Your task to perform on an android device: Add "logitech g502" to the cart on ebay, then select checkout. Image 0: 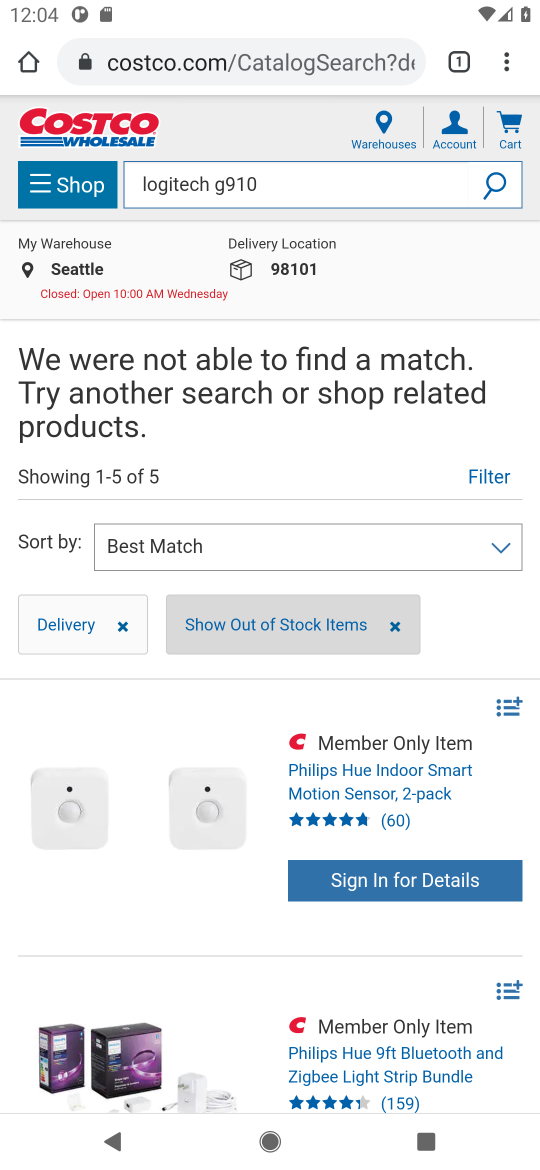
Step 0: press home button
Your task to perform on an android device: Add "logitech g502" to the cart on ebay, then select checkout. Image 1: 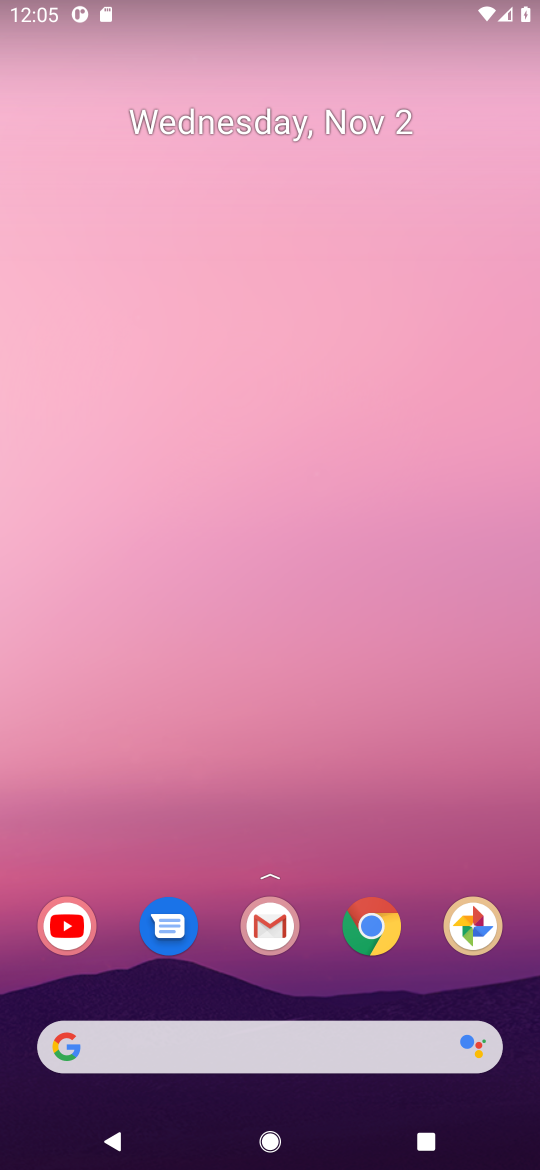
Step 1: click (375, 925)
Your task to perform on an android device: Add "logitech g502" to the cart on ebay, then select checkout. Image 2: 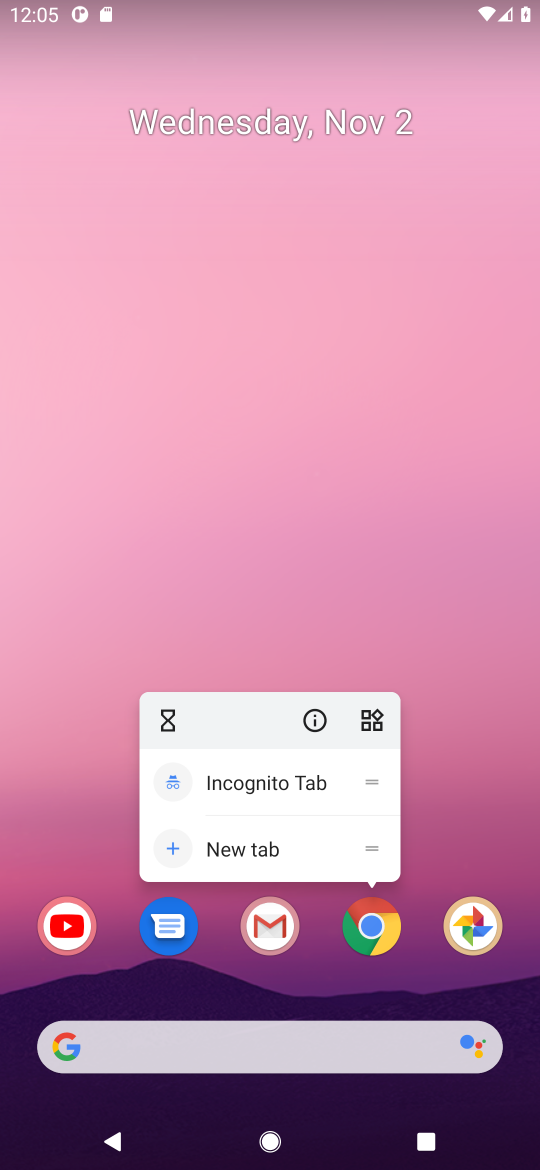
Step 2: click (374, 930)
Your task to perform on an android device: Add "logitech g502" to the cart on ebay, then select checkout. Image 3: 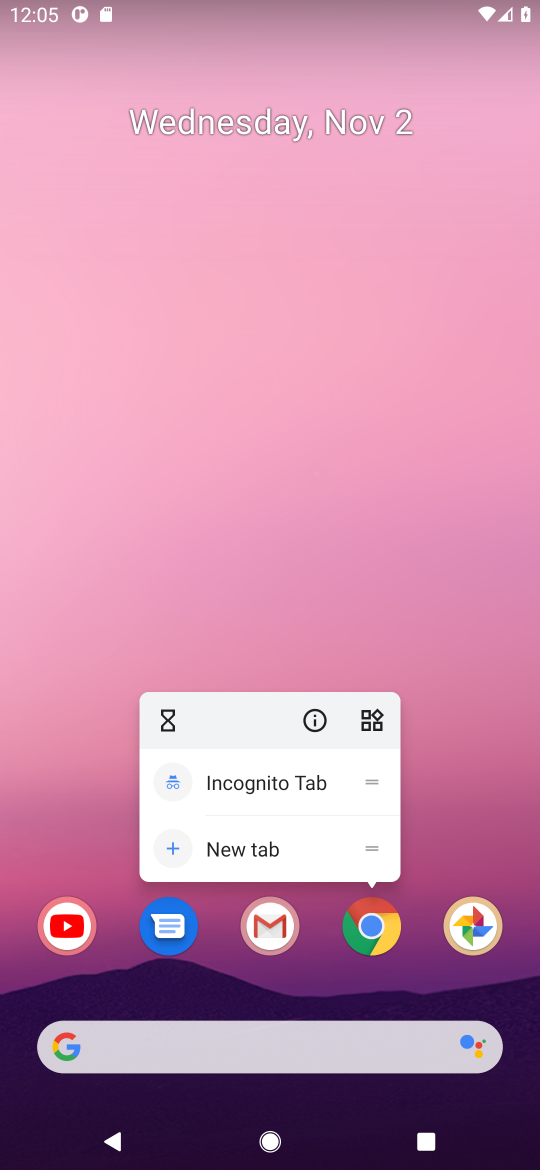
Step 3: click (367, 934)
Your task to perform on an android device: Add "logitech g502" to the cart on ebay, then select checkout. Image 4: 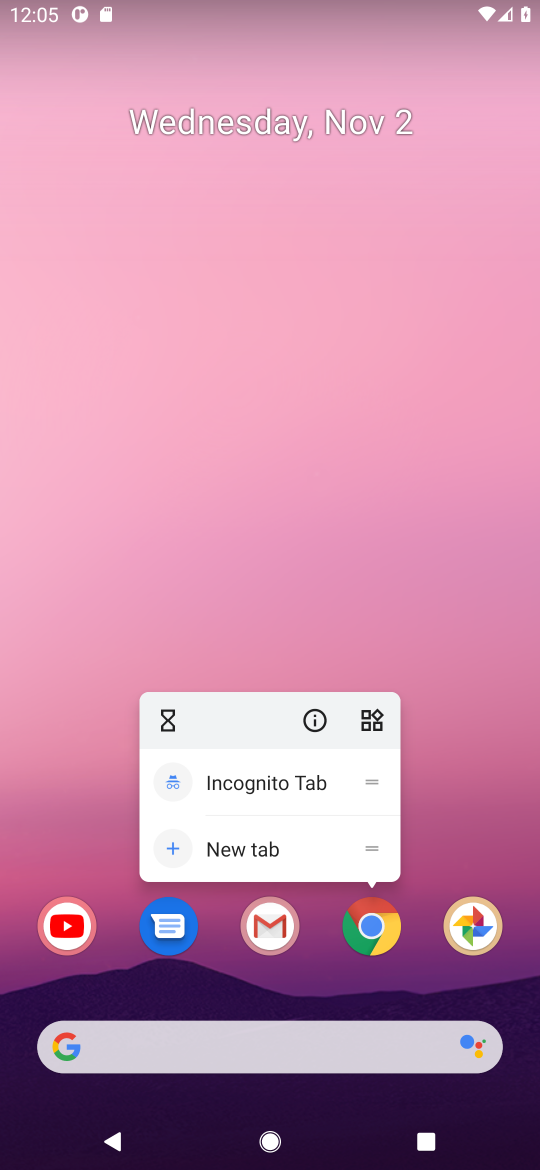
Step 4: click (374, 918)
Your task to perform on an android device: Add "logitech g502" to the cart on ebay, then select checkout. Image 5: 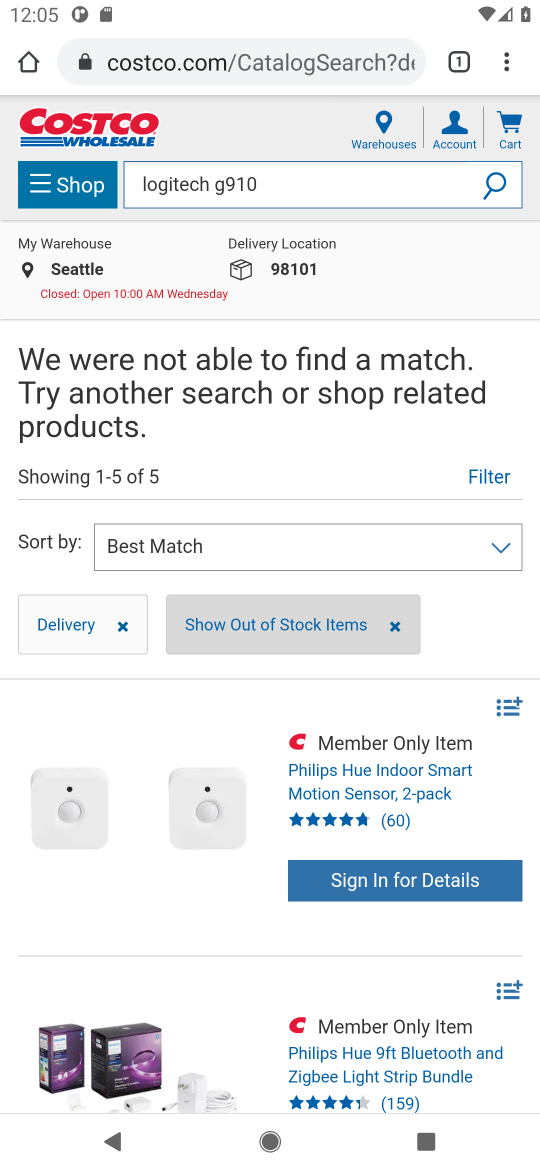
Step 5: click (252, 59)
Your task to perform on an android device: Add "logitech g502" to the cart on ebay, then select checkout. Image 6: 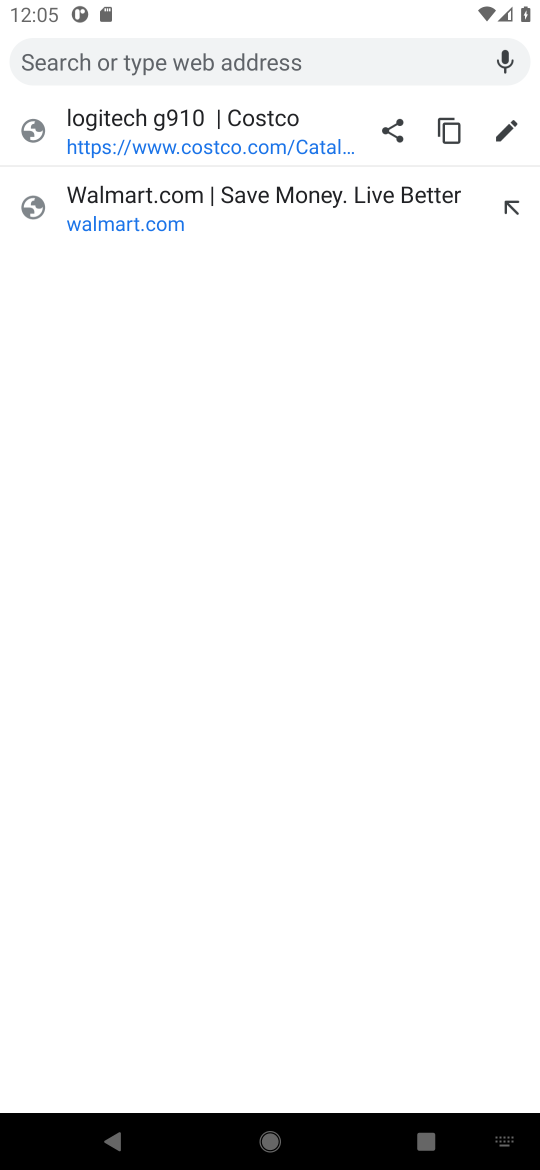
Step 6: type "ebay"
Your task to perform on an android device: Add "logitech g502" to the cart on ebay, then select checkout. Image 7: 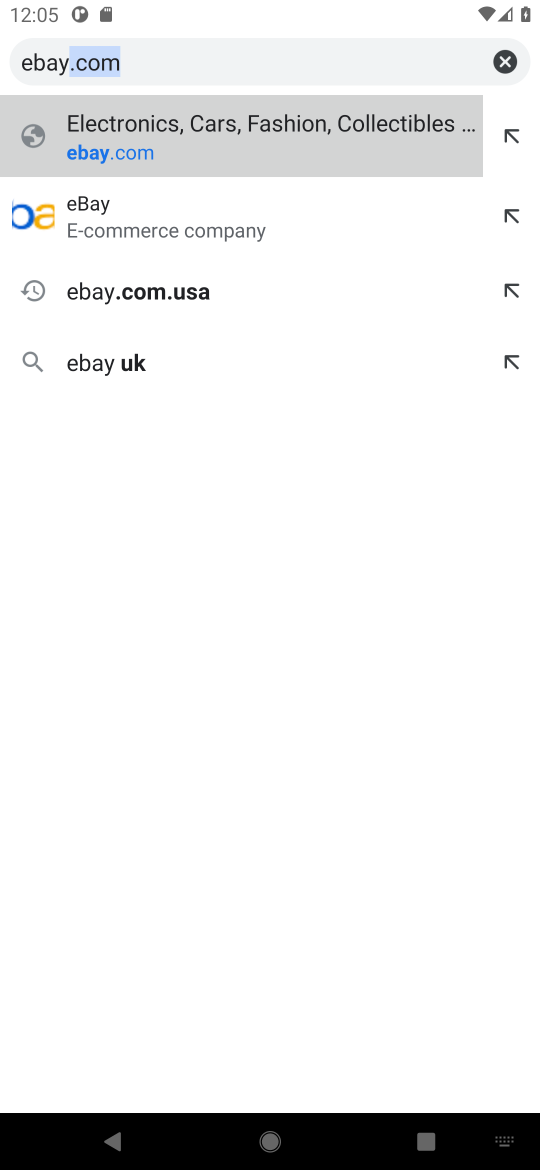
Step 7: press enter
Your task to perform on an android device: Add "logitech g502" to the cart on ebay, then select checkout. Image 8: 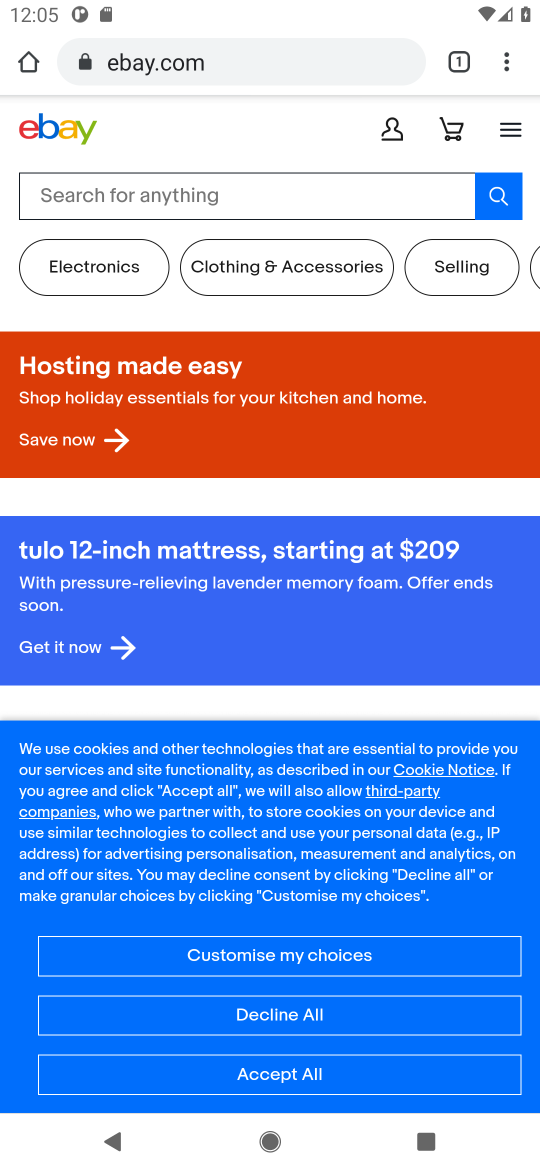
Step 8: click (254, 1076)
Your task to perform on an android device: Add "logitech g502" to the cart on ebay, then select checkout. Image 9: 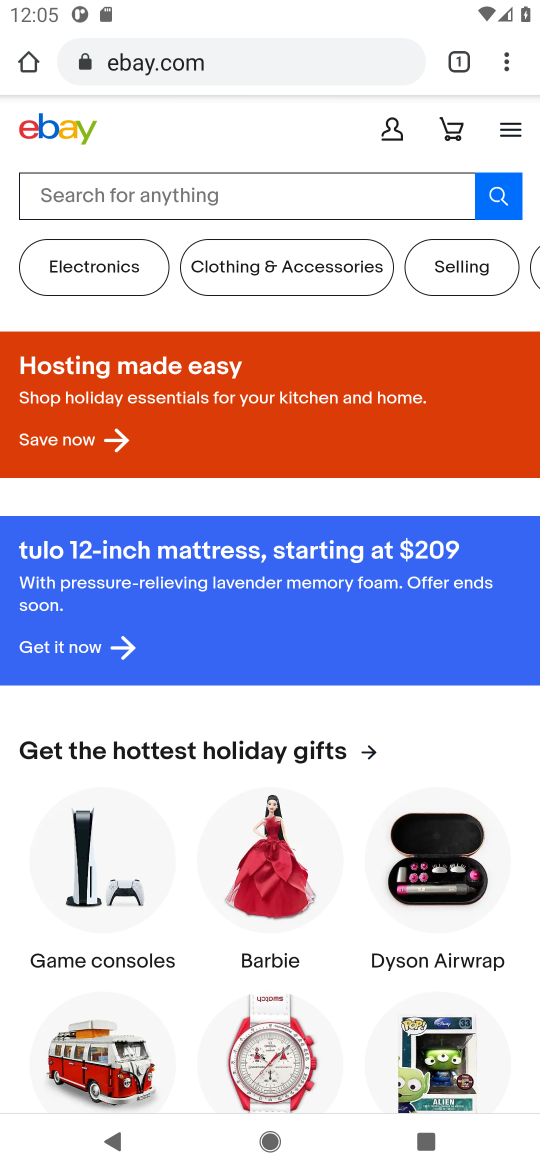
Step 9: click (174, 197)
Your task to perform on an android device: Add "logitech g502" to the cart on ebay, then select checkout. Image 10: 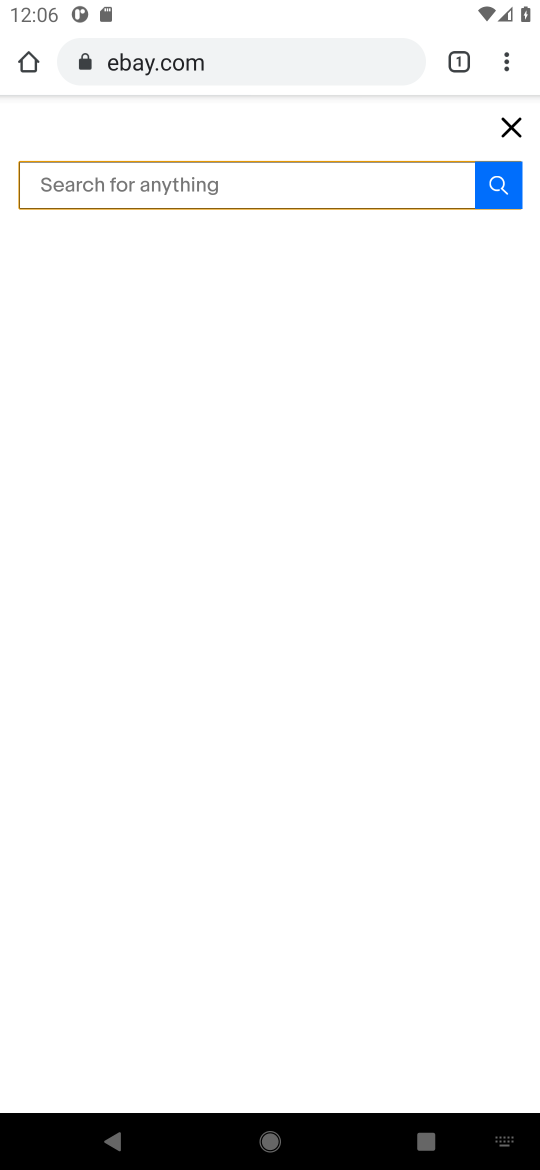
Step 10: type "logitech g502"
Your task to perform on an android device: Add "logitech g502" to the cart on ebay, then select checkout. Image 11: 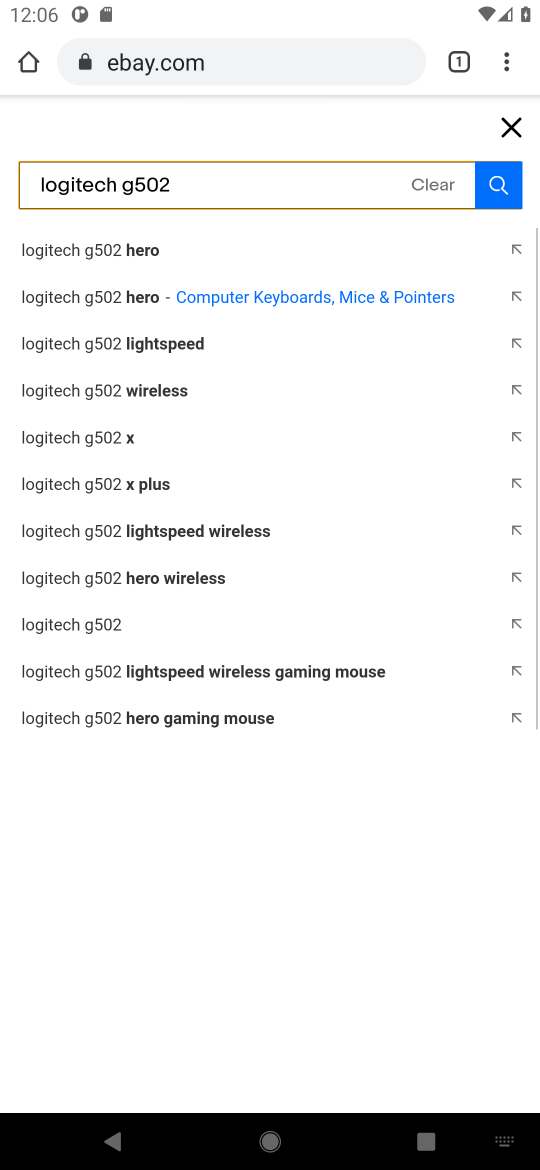
Step 11: press enter
Your task to perform on an android device: Add "logitech g502" to the cart on ebay, then select checkout. Image 12: 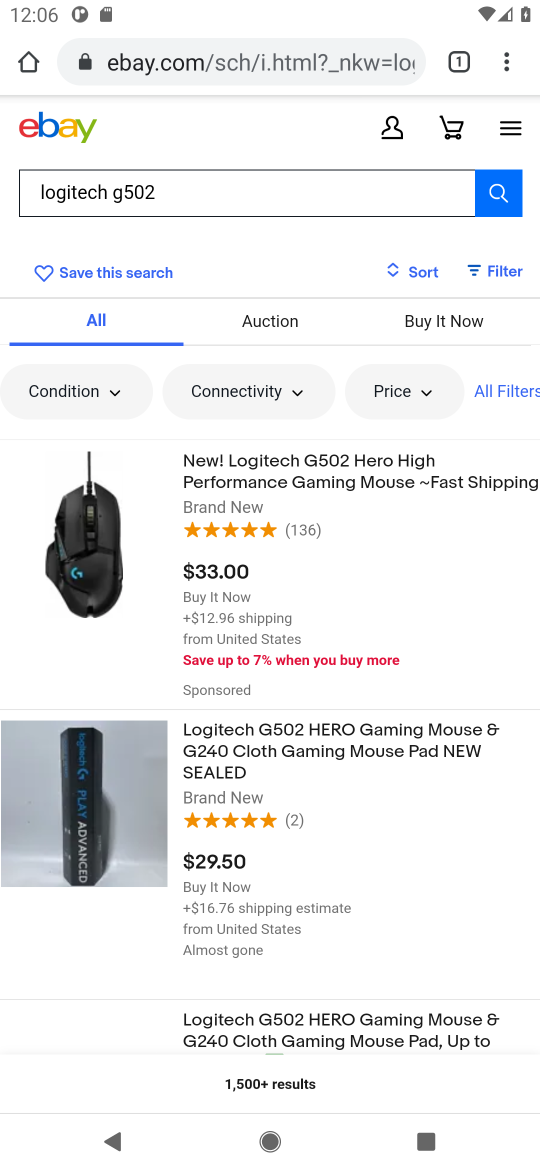
Step 12: click (309, 550)
Your task to perform on an android device: Add "logitech g502" to the cart on ebay, then select checkout. Image 13: 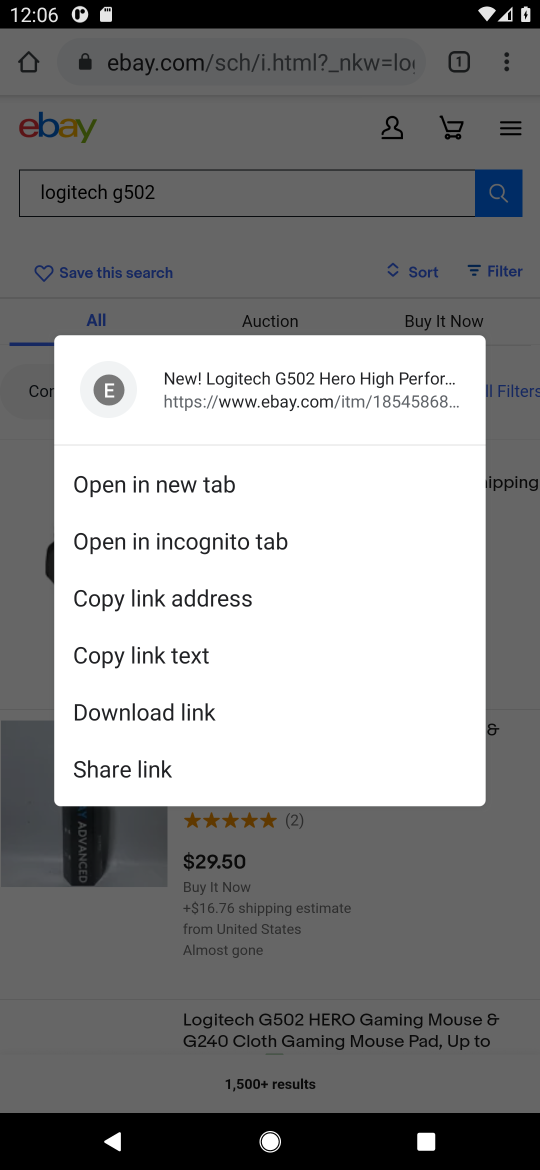
Step 13: click (503, 560)
Your task to perform on an android device: Add "logitech g502" to the cart on ebay, then select checkout. Image 14: 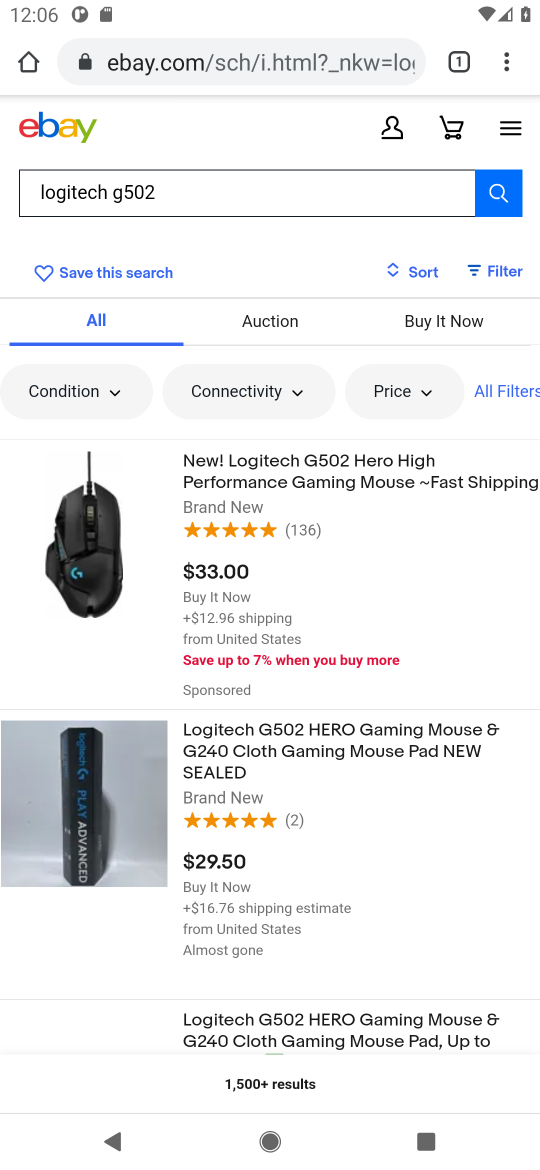
Step 14: click (239, 472)
Your task to perform on an android device: Add "logitech g502" to the cart on ebay, then select checkout. Image 15: 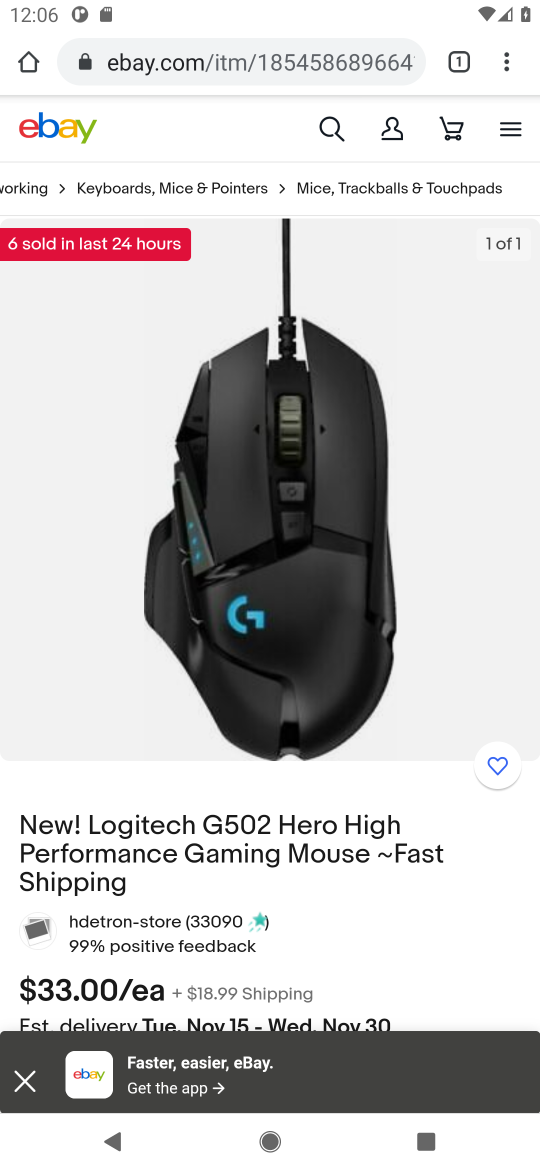
Step 15: drag from (373, 986) to (454, 161)
Your task to perform on an android device: Add "logitech g502" to the cart on ebay, then select checkout. Image 16: 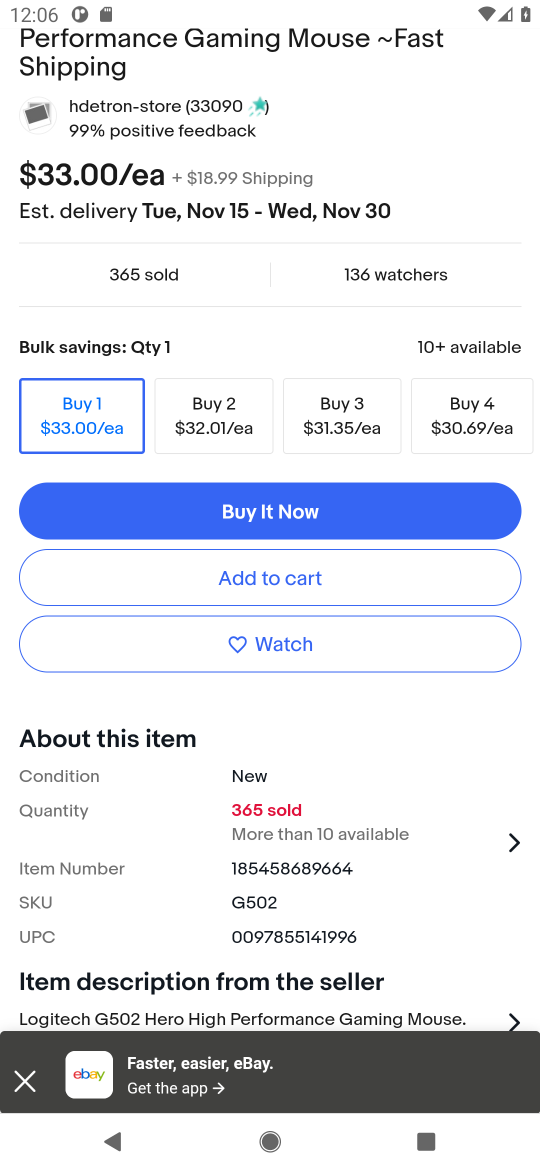
Step 16: click (262, 575)
Your task to perform on an android device: Add "logitech g502" to the cart on ebay, then select checkout. Image 17: 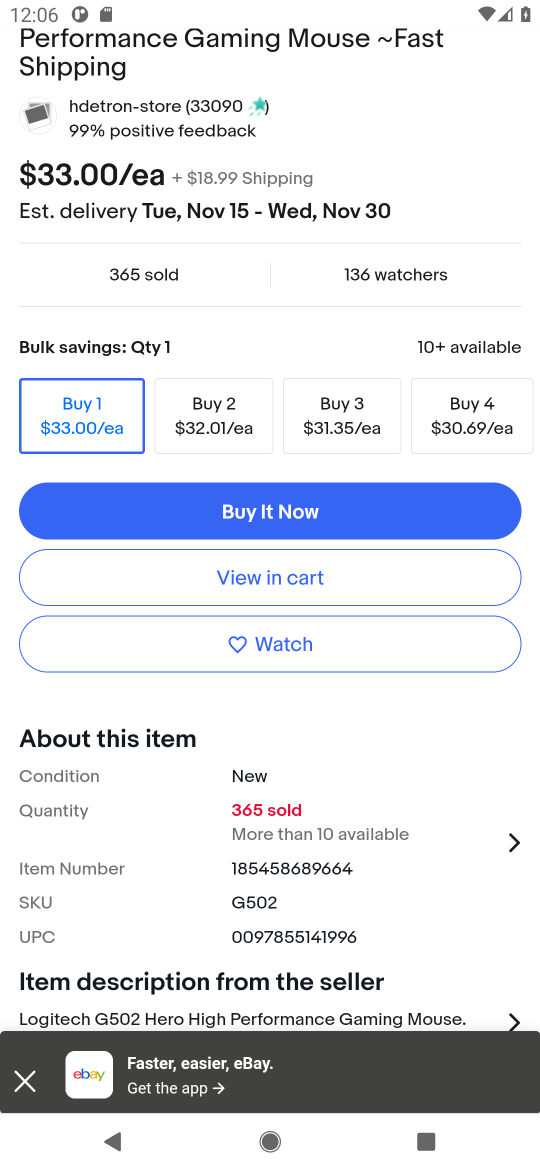
Step 17: click (271, 570)
Your task to perform on an android device: Add "logitech g502" to the cart on ebay, then select checkout. Image 18: 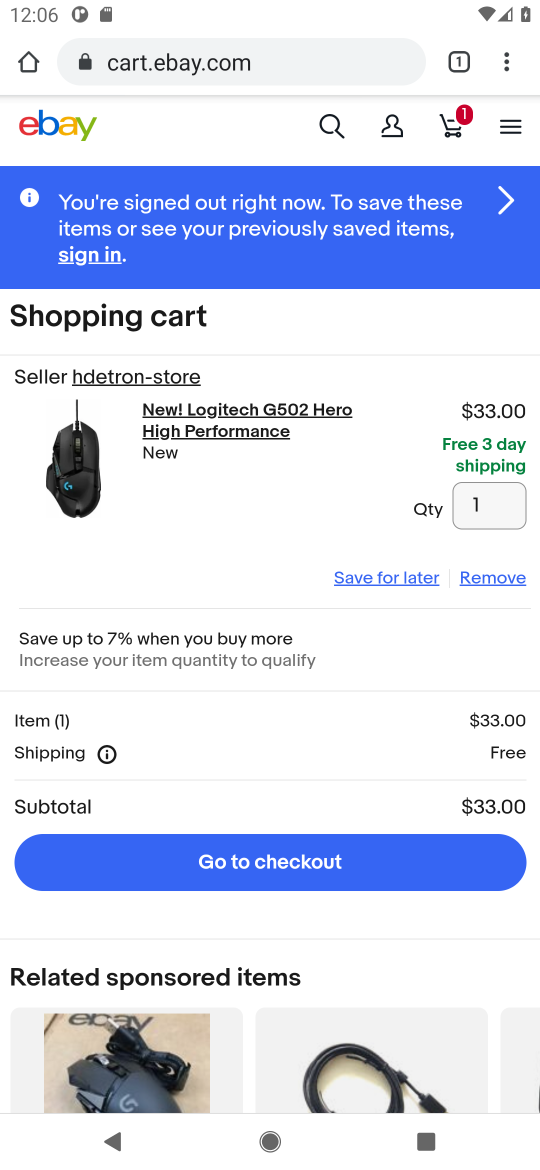
Step 18: click (277, 867)
Your task to perform on an android device: Add "logitech g502" to the cart on ebay, then select checkout. Image 19: 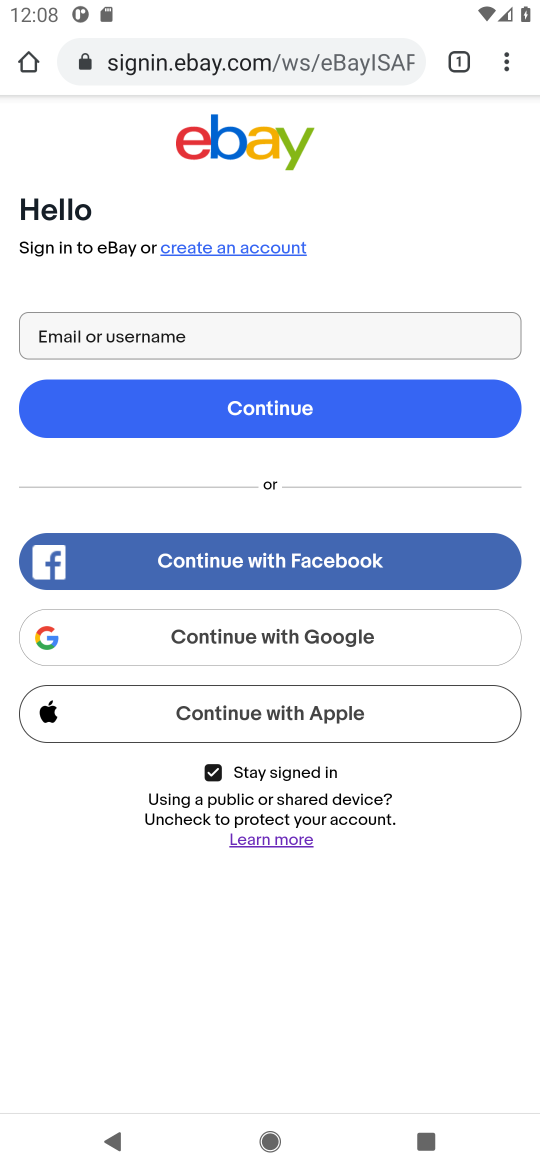
Step 19: task complete